Your task to perform on an android device: turn notification dots off Image 0: 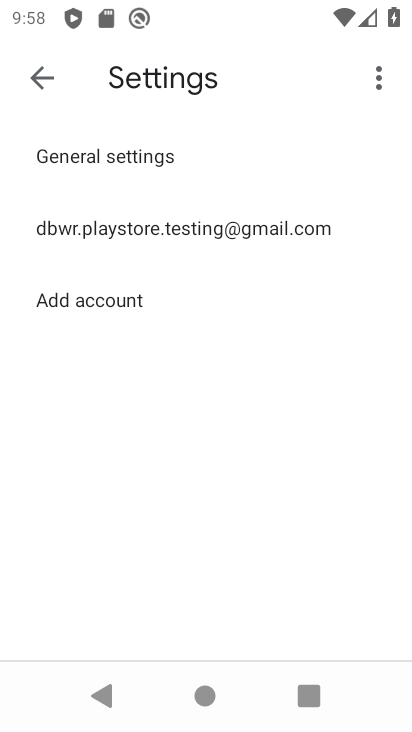
Step 0: press home button
Your task to perform on an android device: turn notification dots off Image 1: 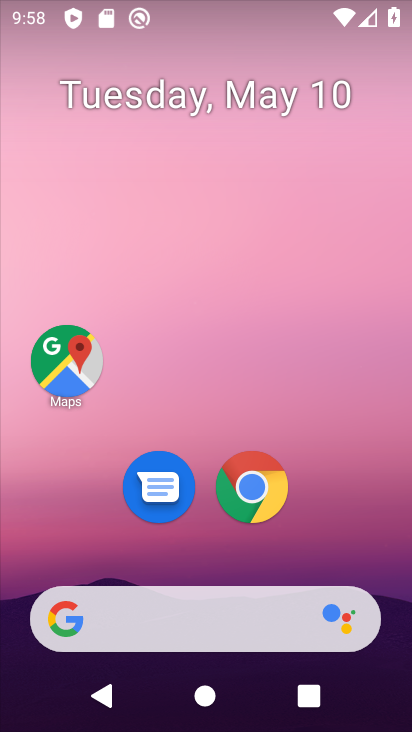
Step 1: drag from (382, 528) to (355, 133)
Your task to perform on an android device: turn notification dots off Image 2: 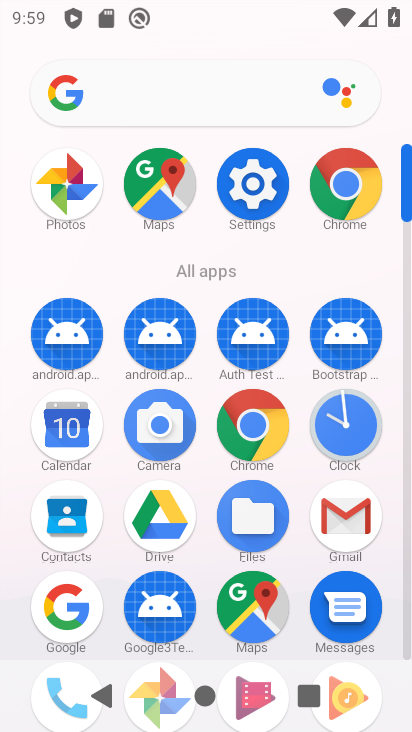
Step 2: click (246, 207)
Your task to perform on an android device: turn notification dots off Image 3: 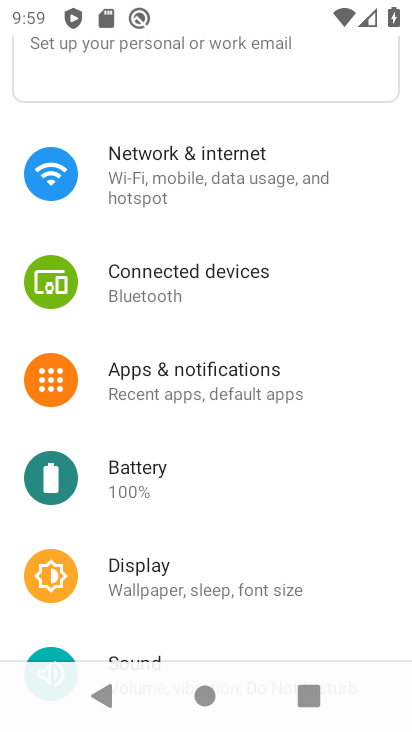
Step 3: click (231, 376)
Your task to perform on an android device: turn notification dots off Image 4: 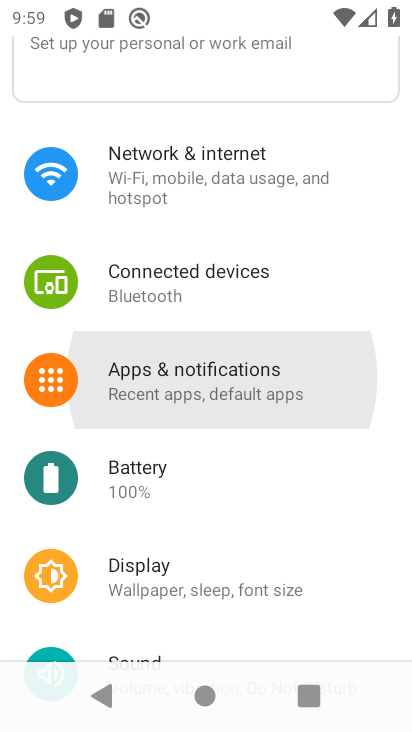
Step 4: click (231, 376)
Your task to perform on an android device: turn notification dots off Image 5: 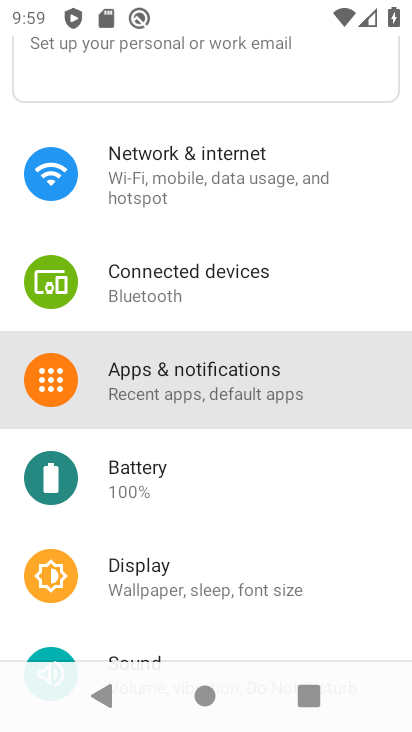
Step 5: click (231, 376)
Your task to perform on an android device: turn notification dots off Image 6: 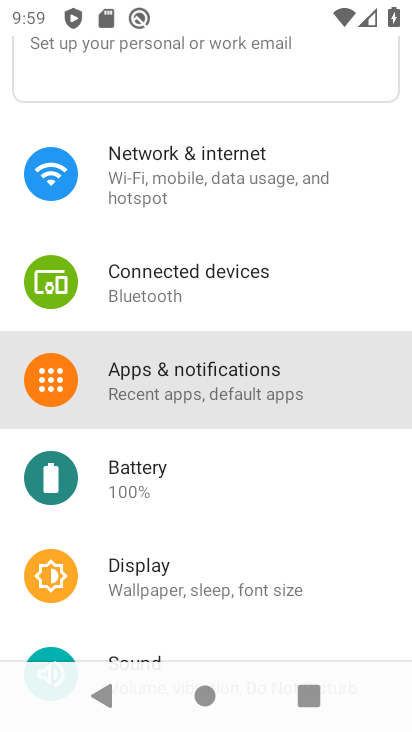
Step 6: click (231, 376)
Your task to perform on an android device: turn notification dots off Image 7: 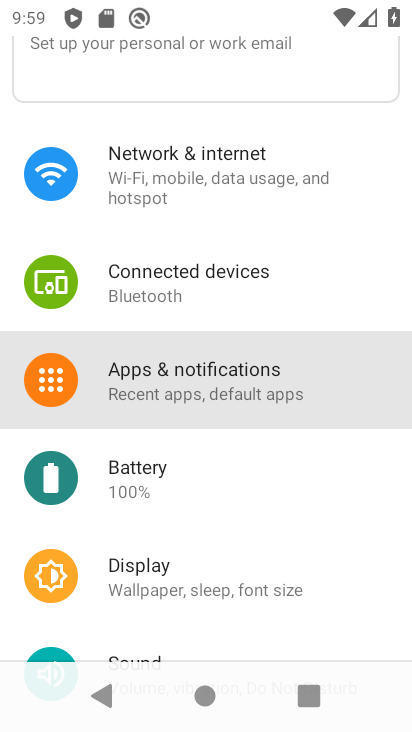
Step 7: click (231, 376)
Your task to perform on an android device: turn notification dots off Image 8: 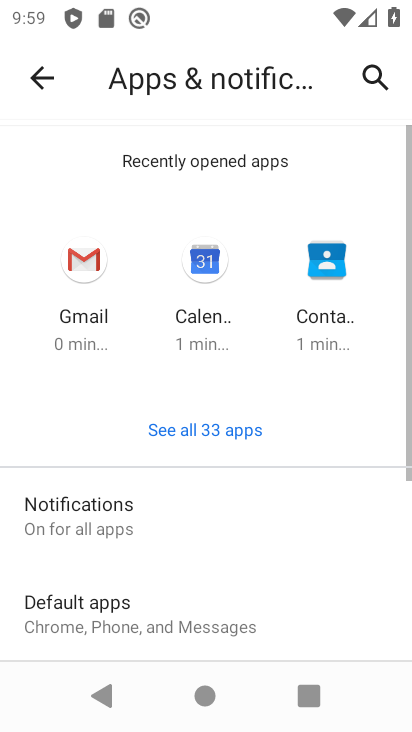
Step 8: drag from (206, 580) to (241, 432)
Your task to perform on an android device: turn notification dots off Image 9: 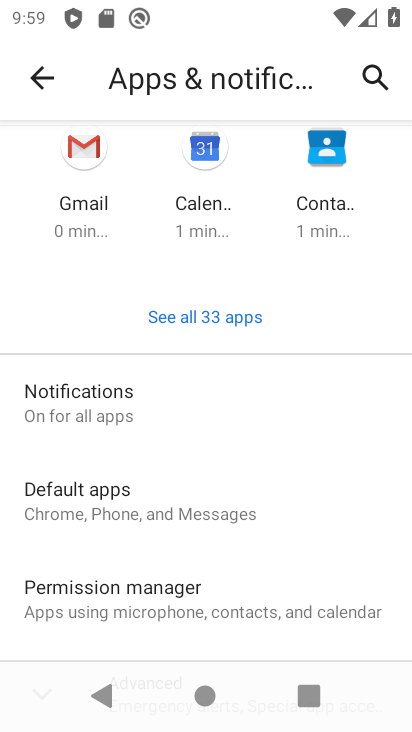
Step 9: click (153, 398)
Your task to perform on an android device: turn notification dots off Image 10: 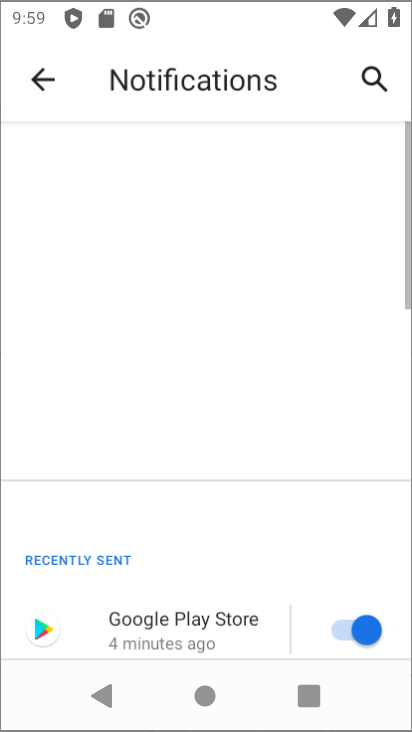
Step 10: drag from (120, 475) to (164, 45)
Your task to perform on an android device: turn notification dots off Image 11: 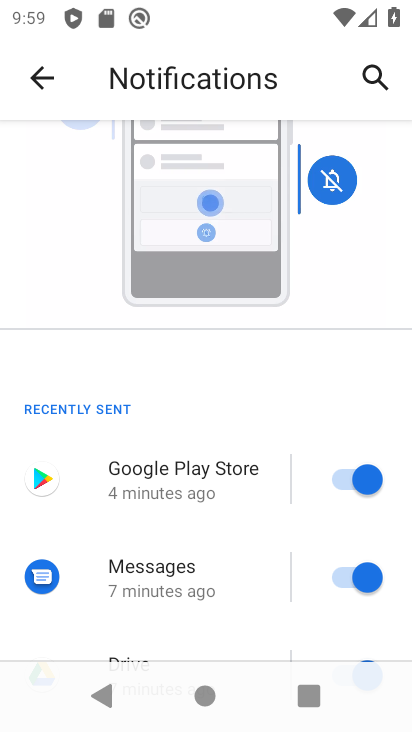
Step 11: drag from (203, 500) to (224, 177)
Your task to perform on an android device: turn notification dots off Image 12: 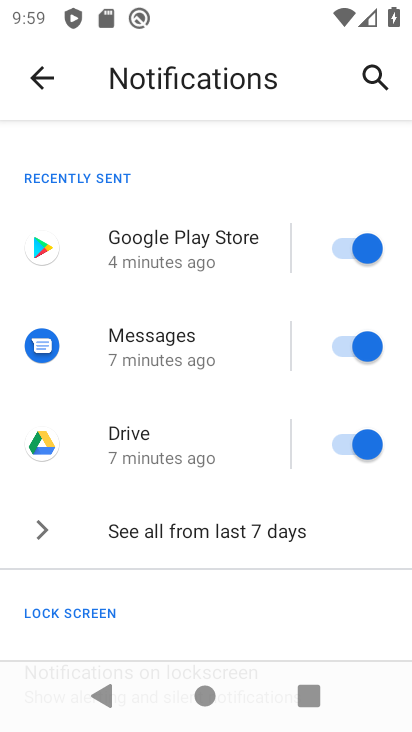
Step 12: drag from (283, 566) to (267, 155)
Your task to perform on an android device: turn notification dots off Image 13: 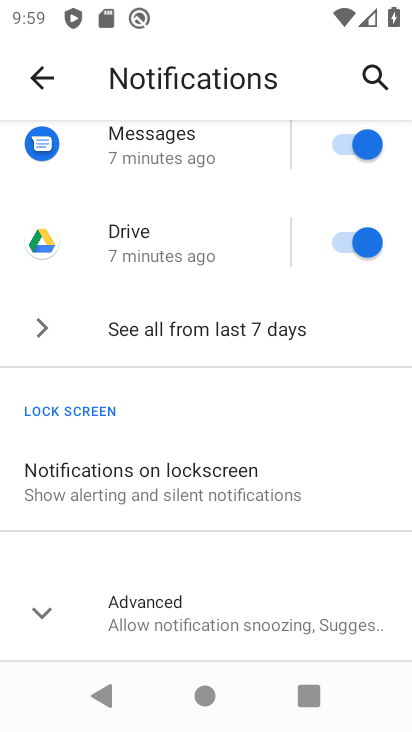
Step 13: click (218, 612)
Your task to perform on an android device: turn notification dots off Image 14: 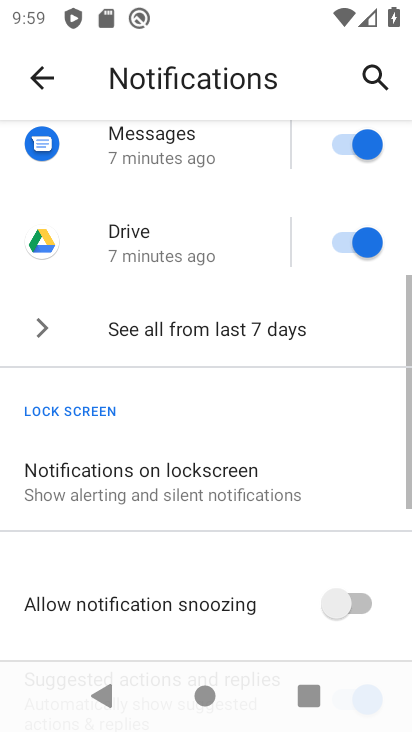
Step 14: drag from (218, 609) to (230, 258)
Your task to perform on an android device: turn notification dots off Image 15: 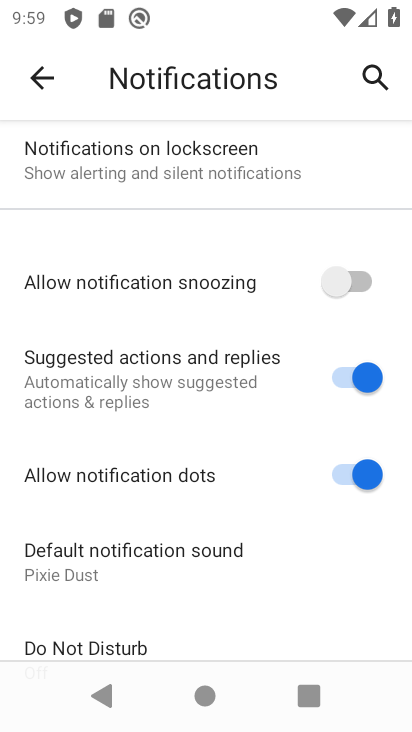
Step 15: click (249, 466)
Your task to perform on an android device: turn notification dots off Image 16: 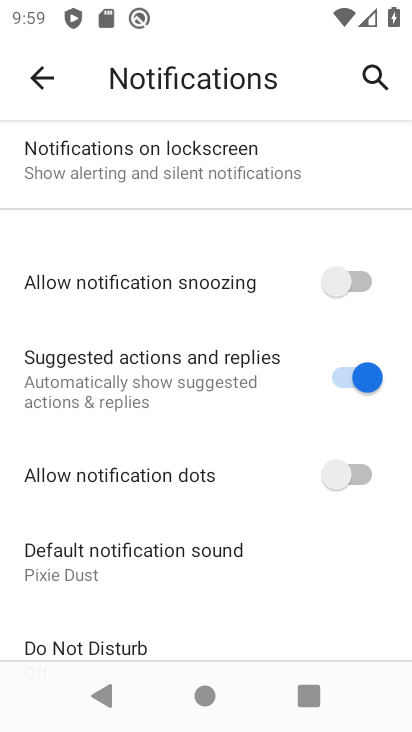
Step 16: task complete